Your task to perform on an android device: Open eBay Image 0: 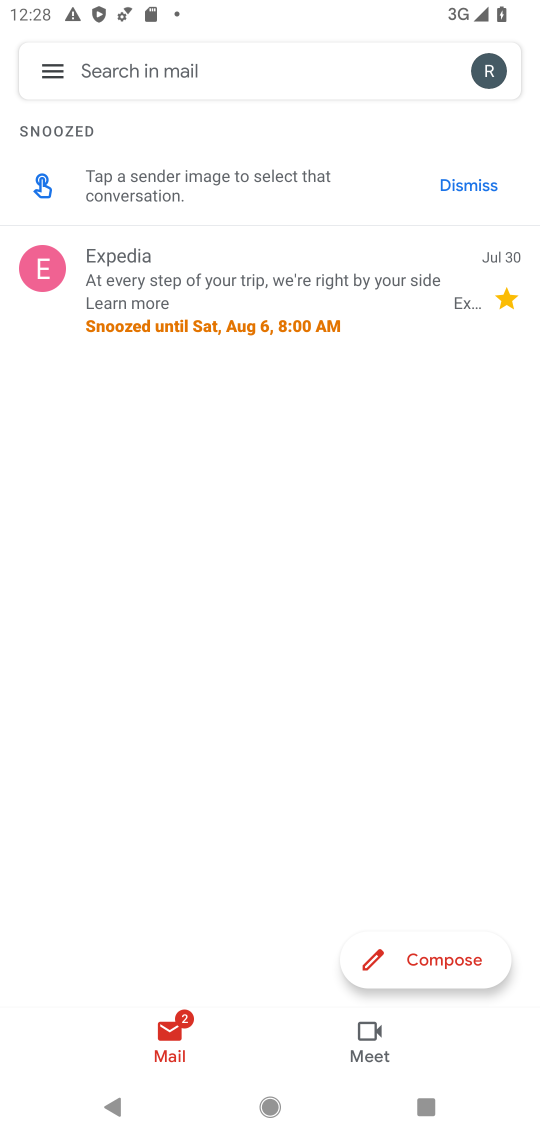
Step 0: drag from (286, 850) to (239, 352)
Your task to perform on an android device: Open eBay Image 1: 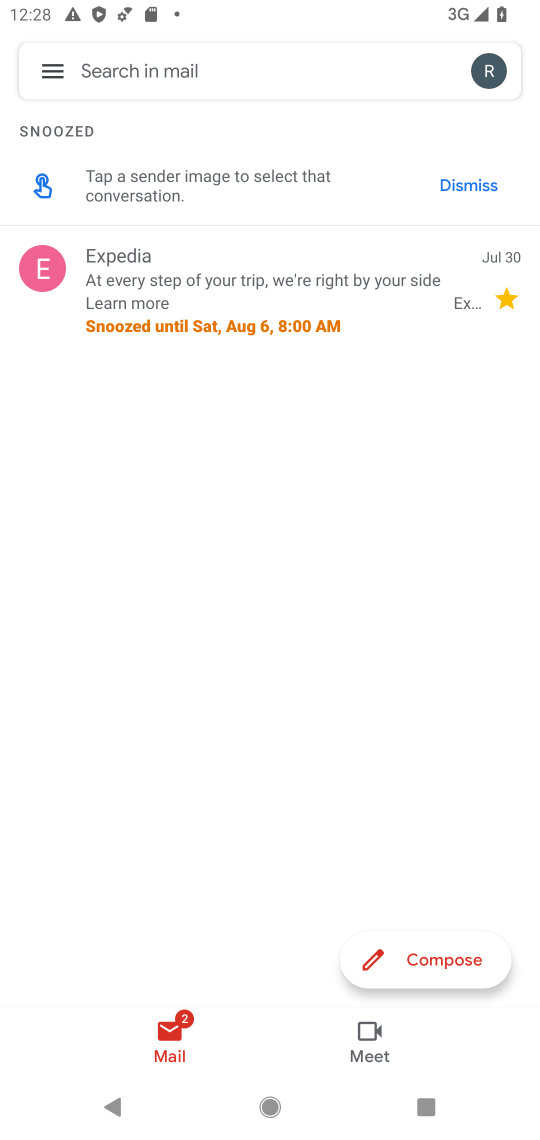
Step 1: press home button
Your task to perform on an android device: Open eBay Image 2: 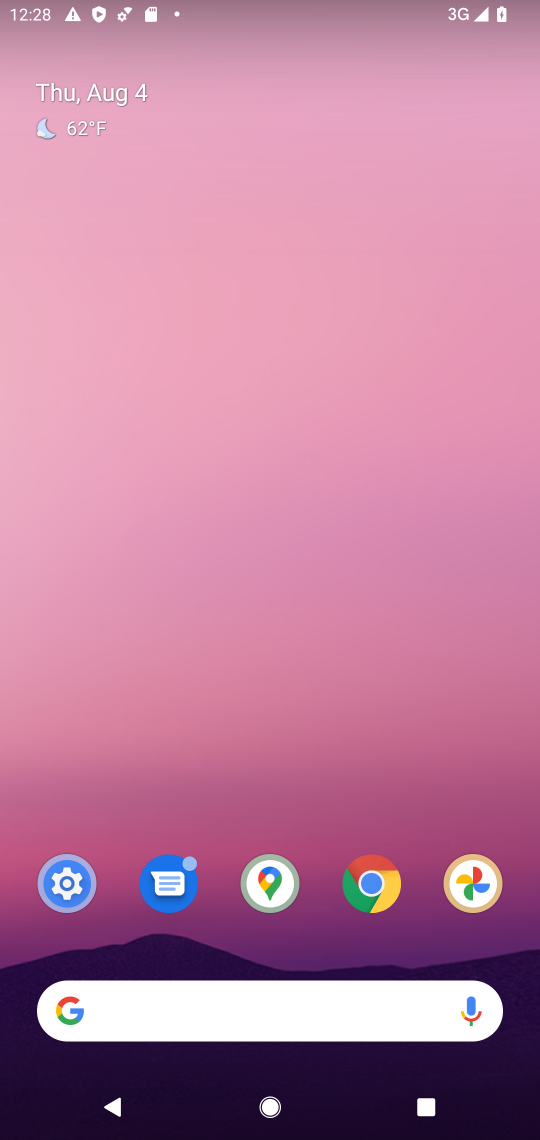
Step 2: drag from (224, 858) to (243, 371)
Your task to perform on an android device: Open eBay Image 3: 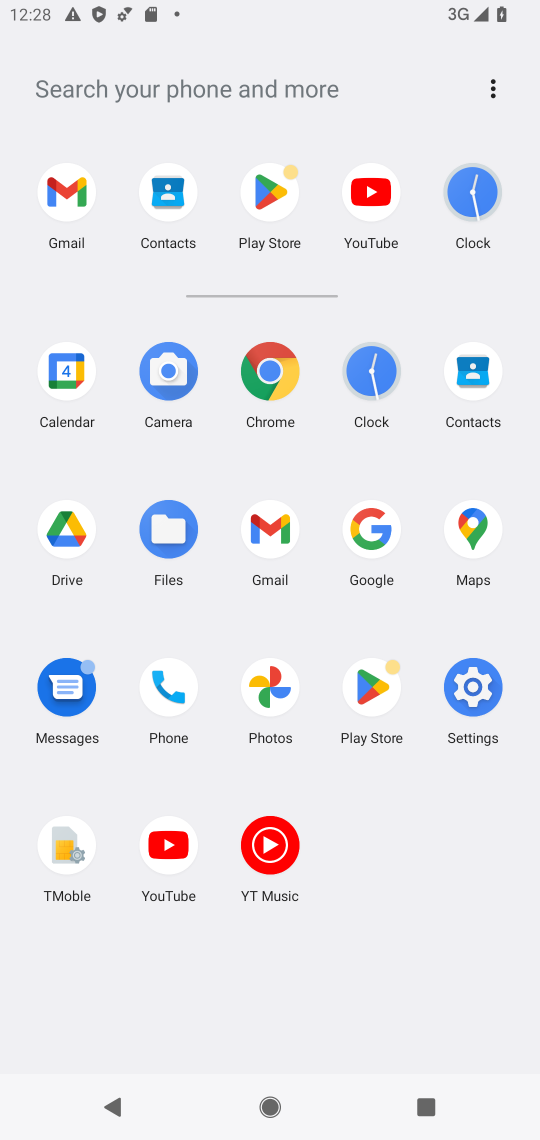
Step 3: click (275, 359)
Your task to perform on an android device: Open eBay Image 4: 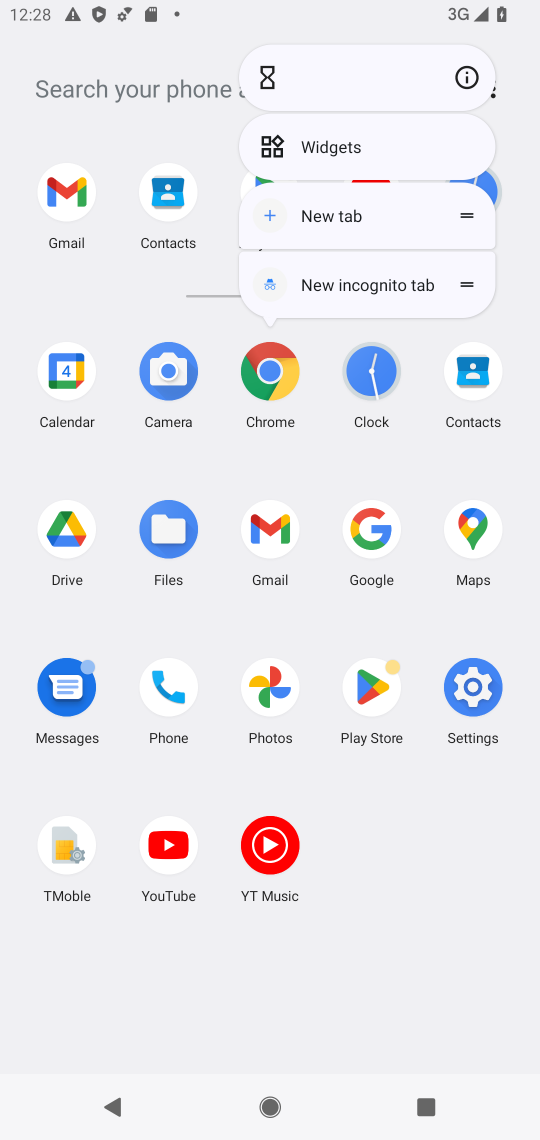
Step 4: click (480, 63)
Your task to perform on an android device: Open eBay Image 5: 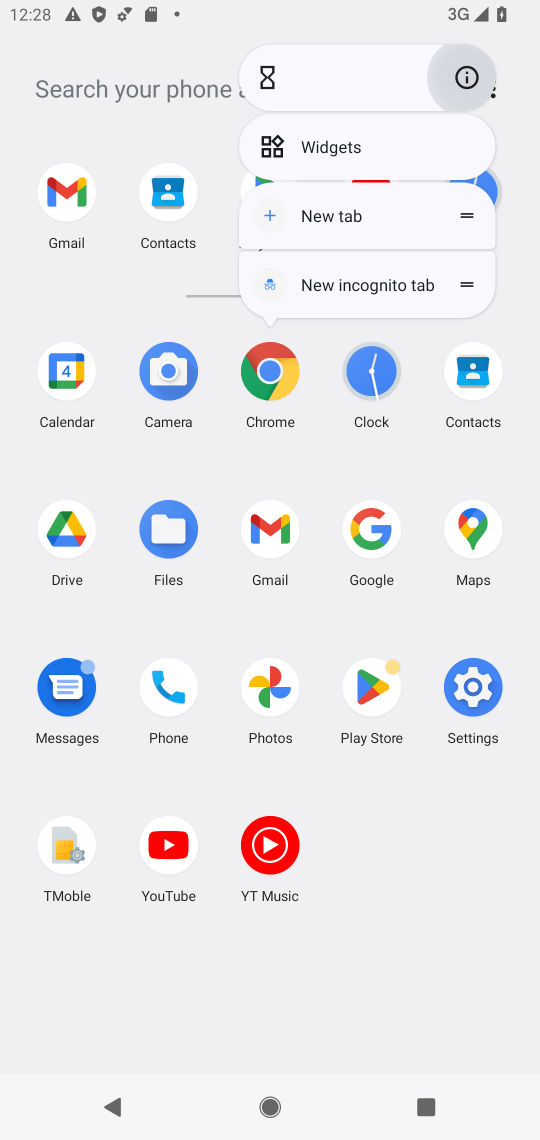
Step 5: click (480, 63)
Your task to perform on an android device: Open eBay Image 6: 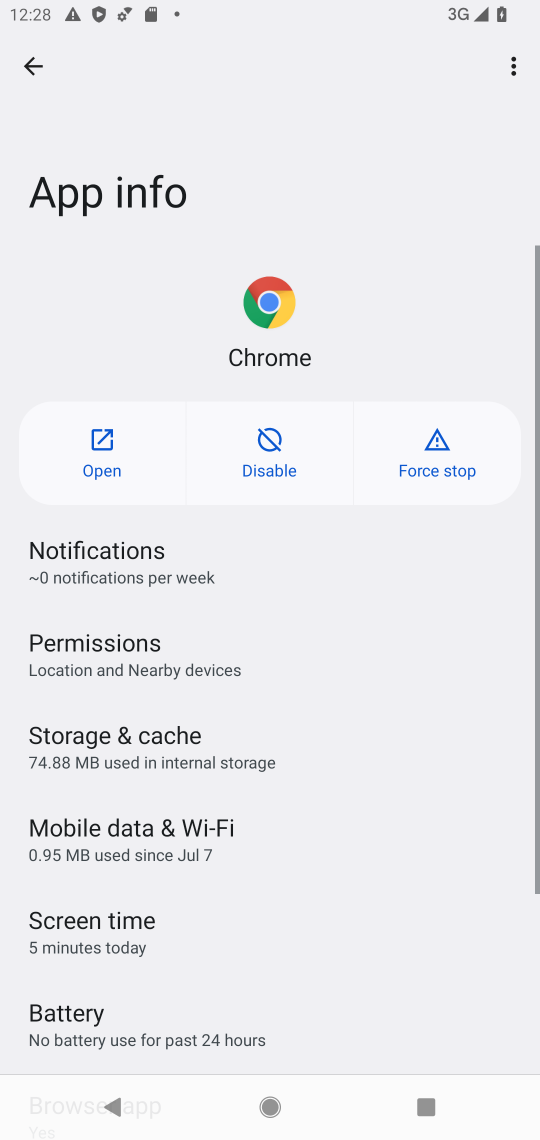
Step 6: click (79, 477)
Your task to perform on an android device: Open eBay Image 7: 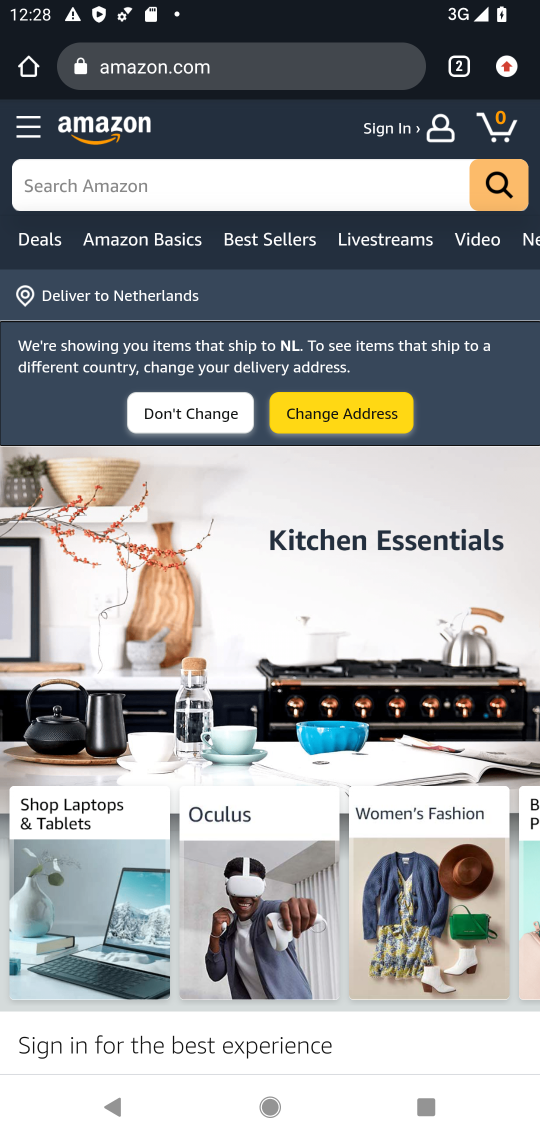
Step 7: click (184, 59)
Your task to perform on an android device: Open eBay Image 8: 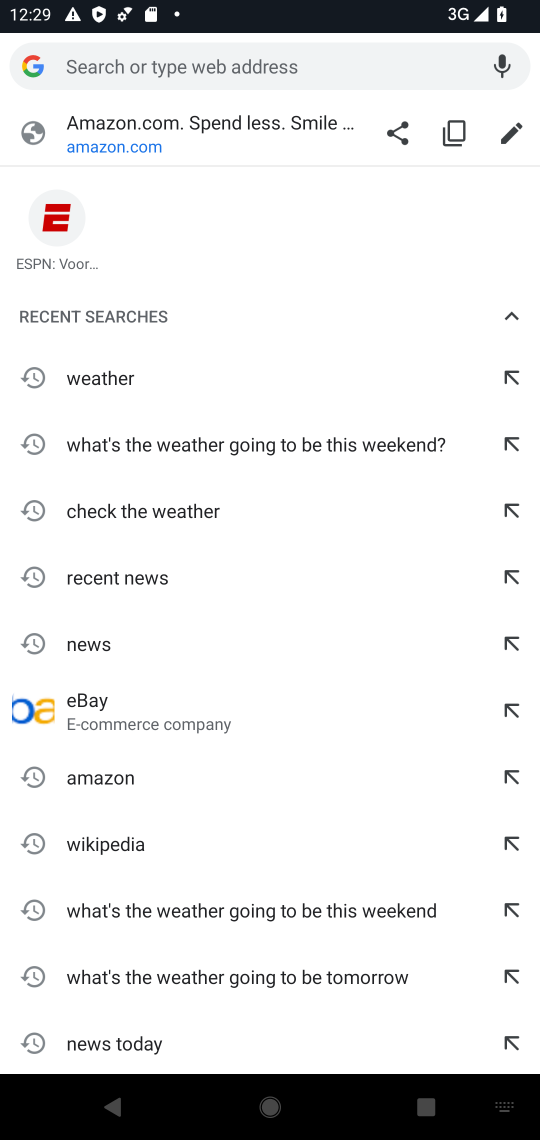
Step 8: type "ebay"
Your task to perform on an android device: Open eBay Image 9: 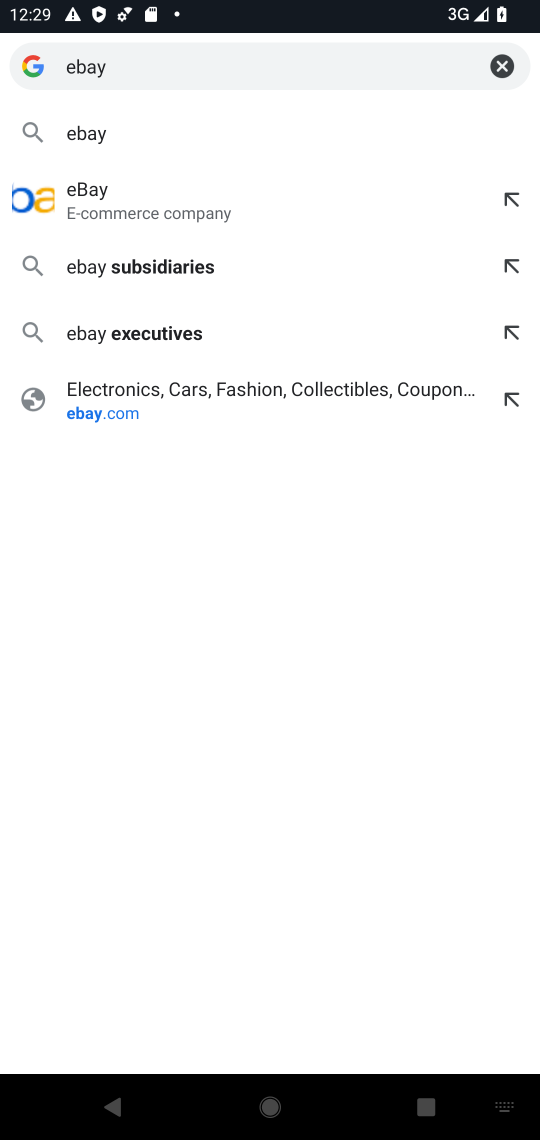
Step 9: drag from (200, 737) to (210, 589)
Your task to perform on an android device: Open eBay Image 10: 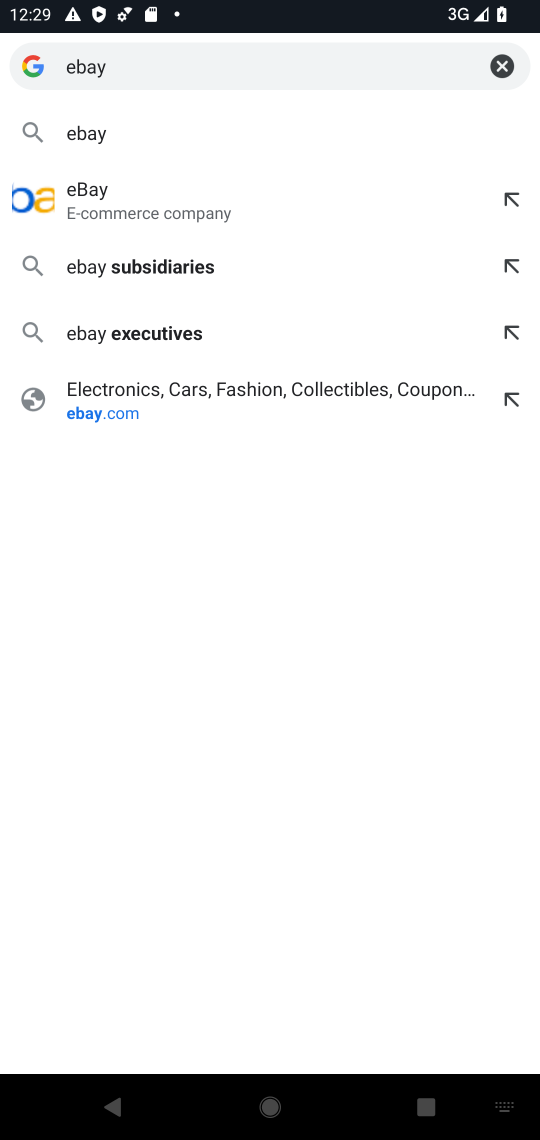
Step 10: click (253, 142)
Your task to perform on an android device: Open eBay Image 11: 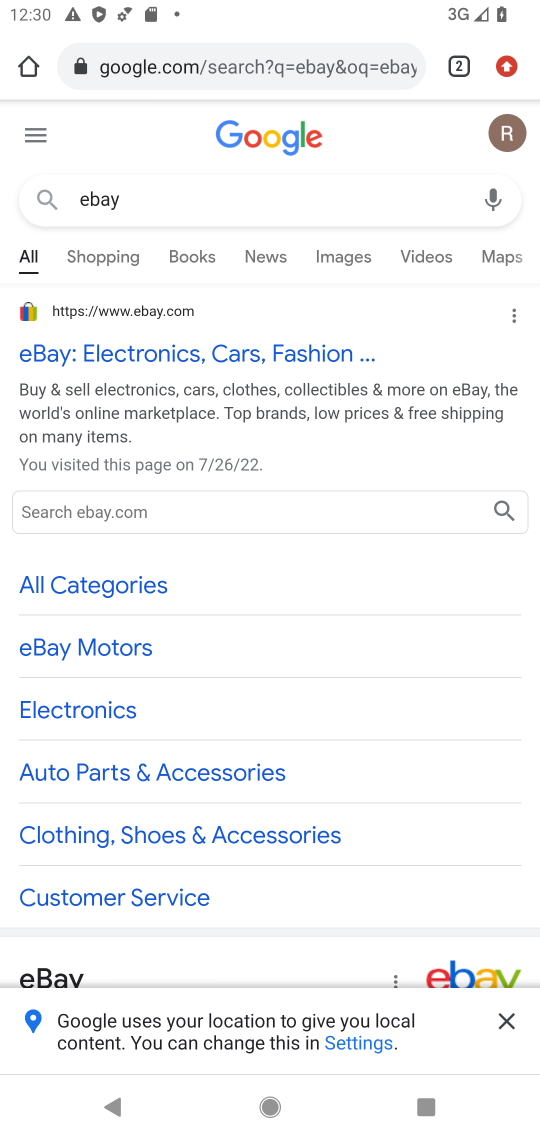
Step 11: click (145, 351)
Your task to perform on an android device: Open eBay Image 12: 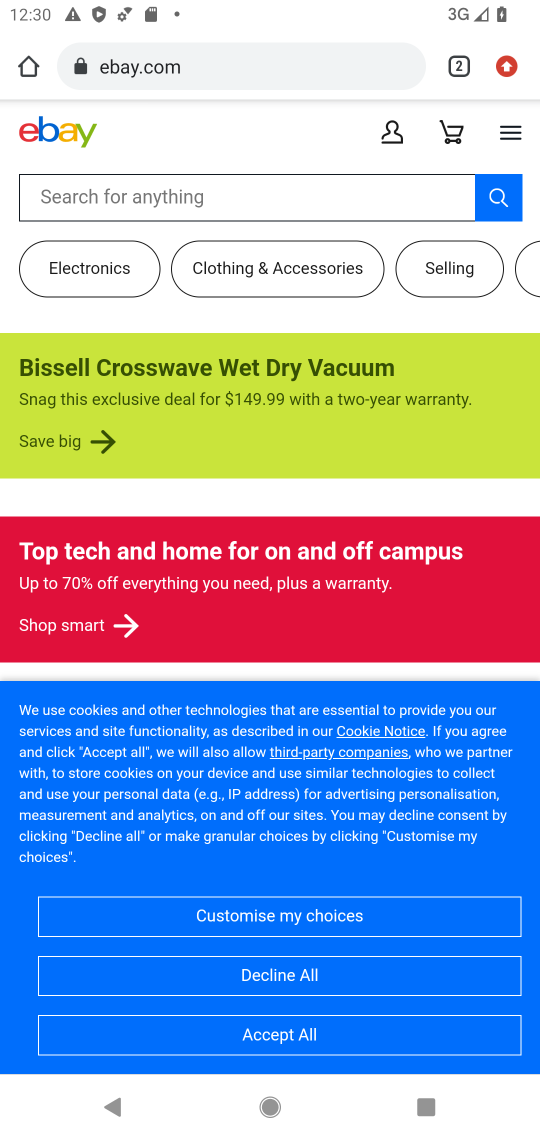
Step 12: task complete